Your task to perform on an android device: Show the shopping cart on newegg. Add lenovo thinkpad to the cart on newegg Image 0: 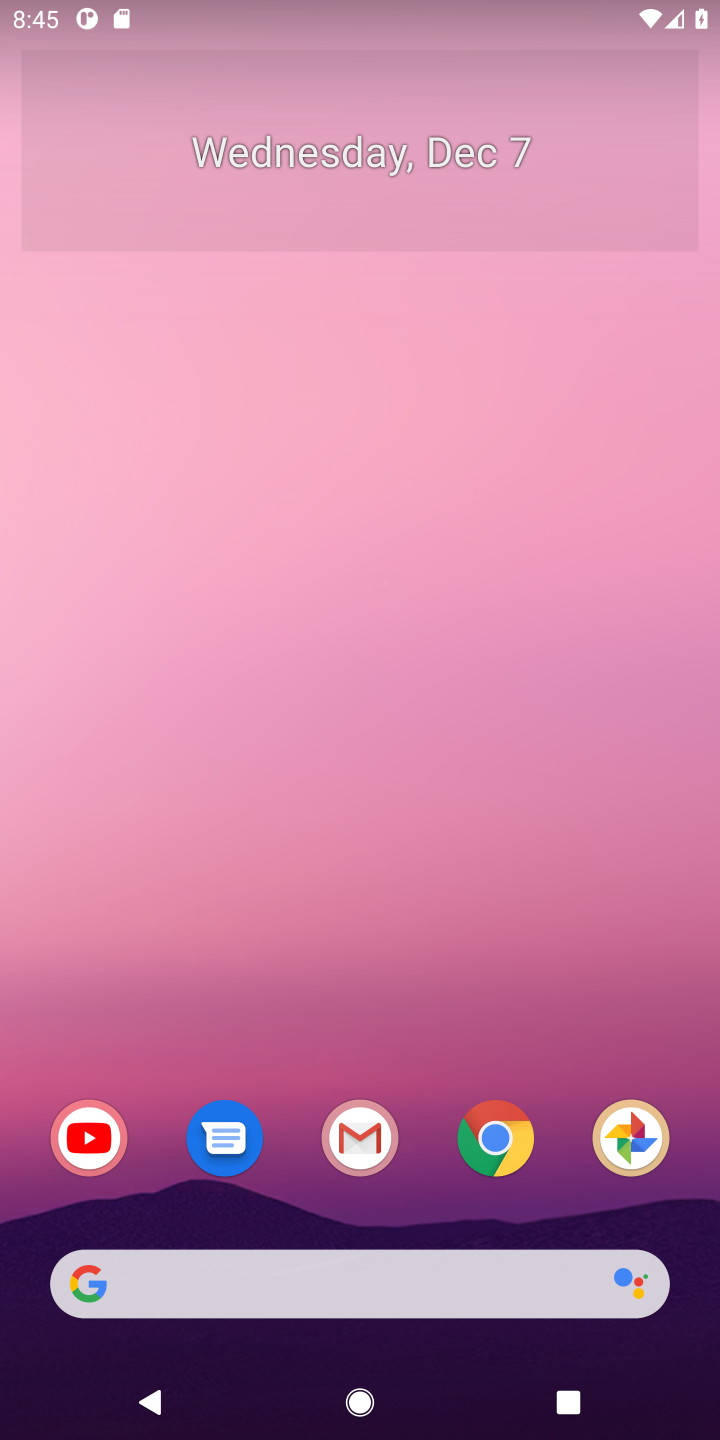
Step 0: press home button
Your task to perform on an android device: Show the shopping cart on newegg. Add lenovo thinkpad to the cart on newegg Image 1: 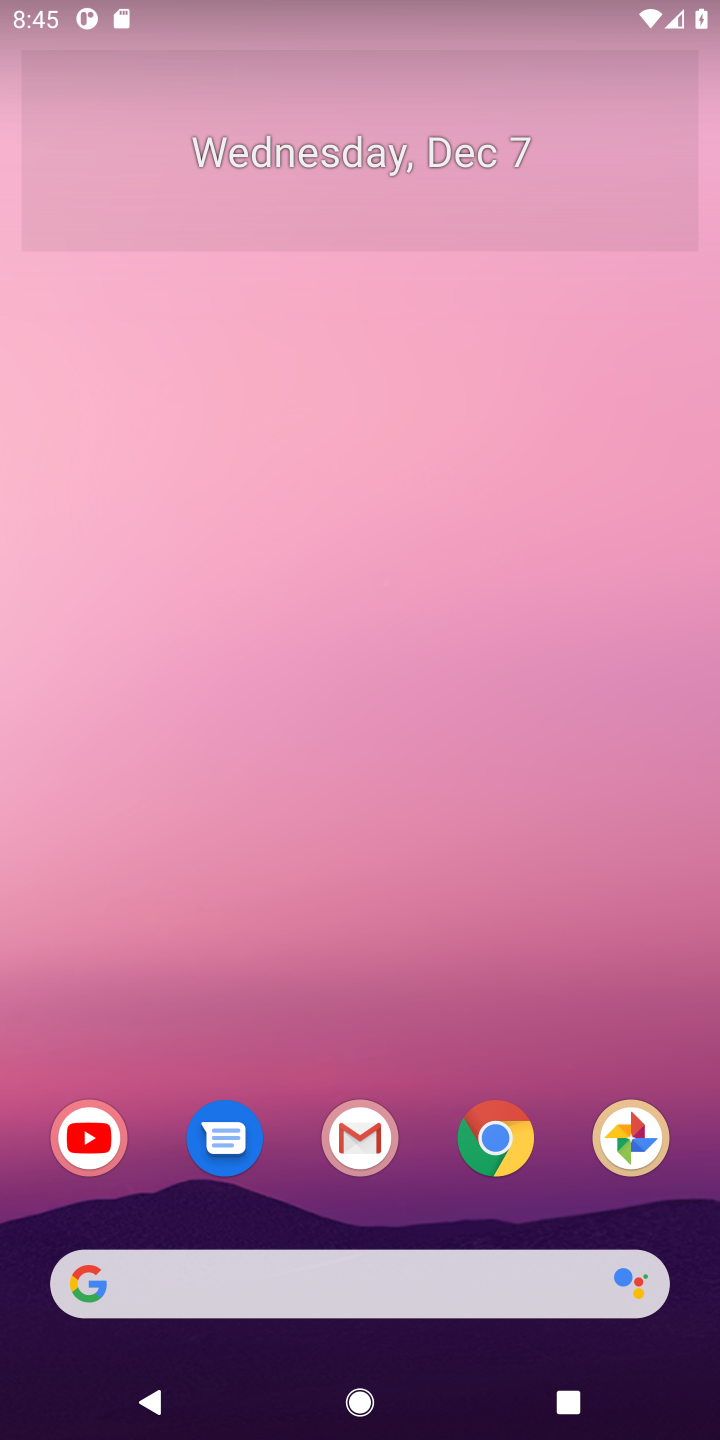
Step 1: click (148, 1281)
Your task to perform on an android device: Show the shopping cart on newegg. Add lenovo thinkpad to the cart on newegg Image 2: 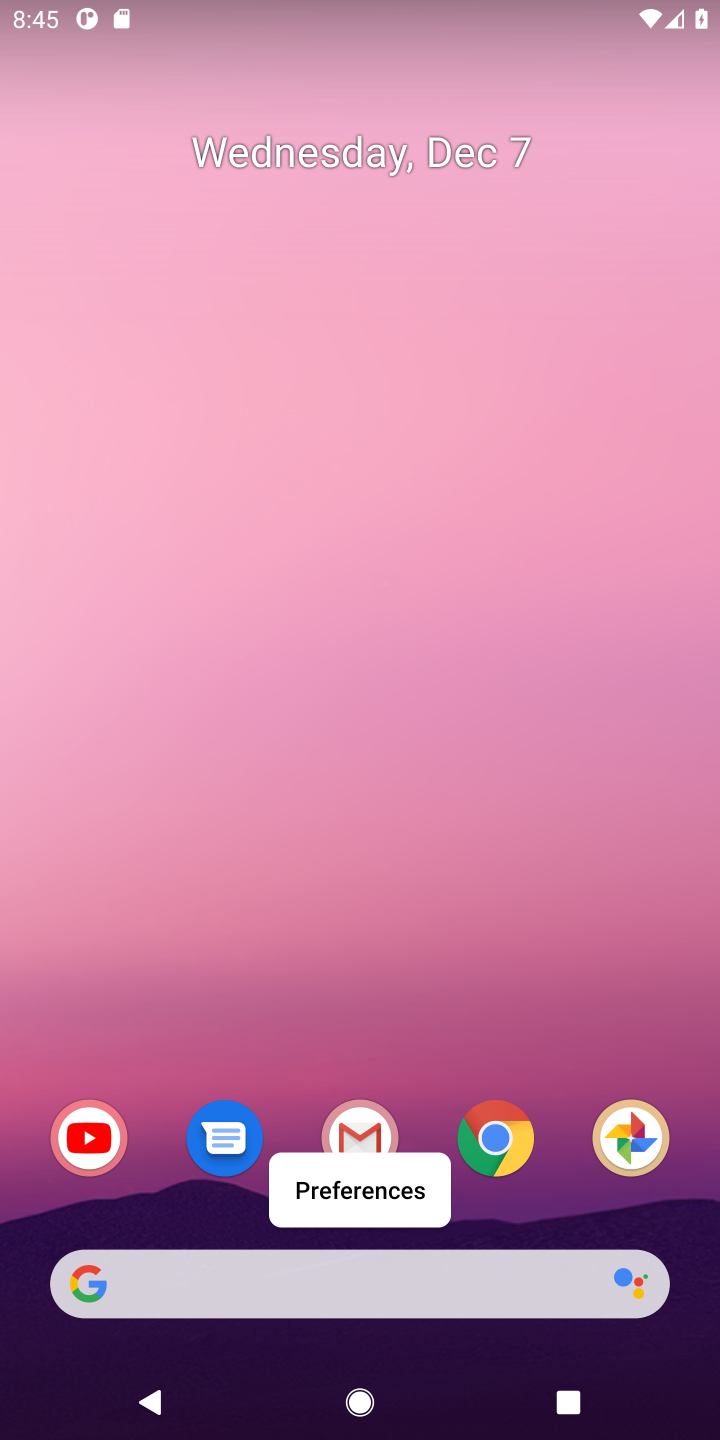
Step 2: click (148, 1281)
Your task to perform on an android device: Show the shopping cart on newegg. Add lenovo thinkpad to the cart on newegg Image 3: 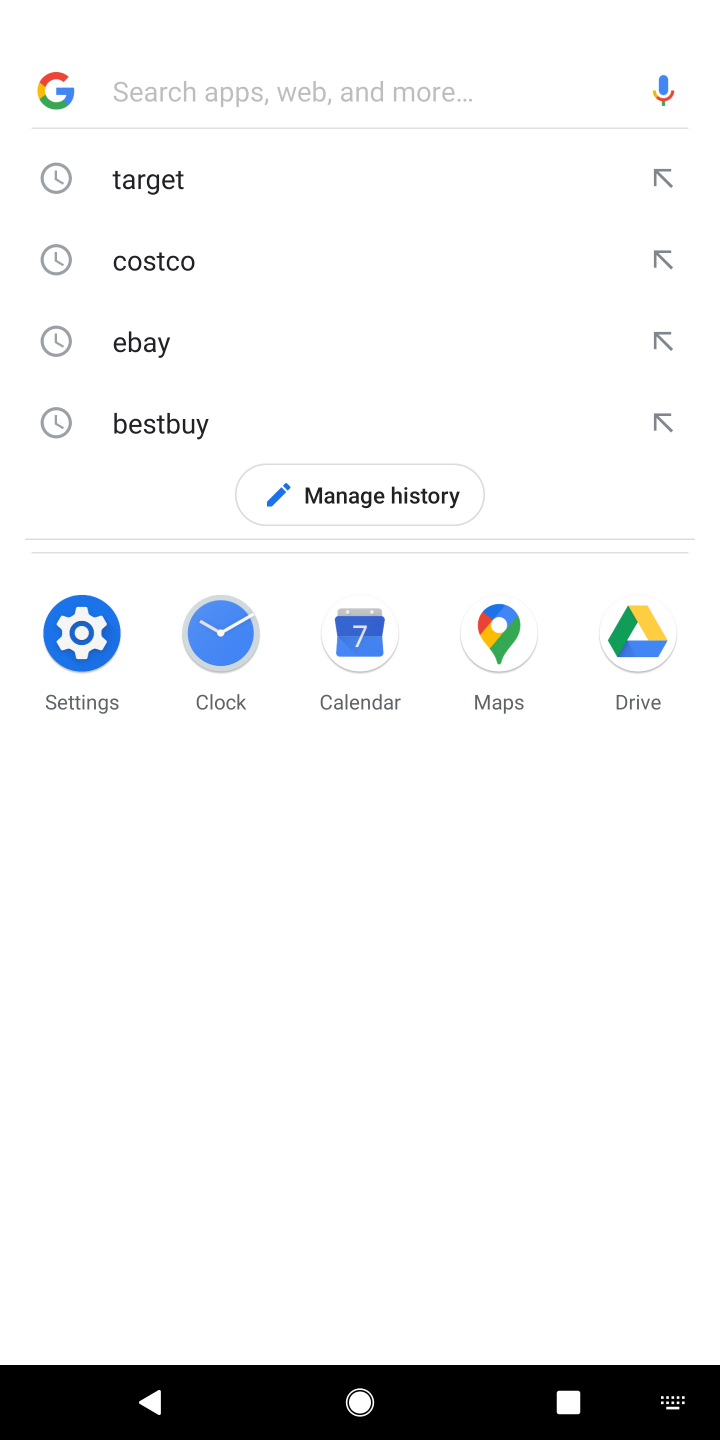
Step 3: press enter
Your task to perform on an android device: Show the shopping cart on newegg. Add lenovo thinkpad to the cart on newegg Image 4: 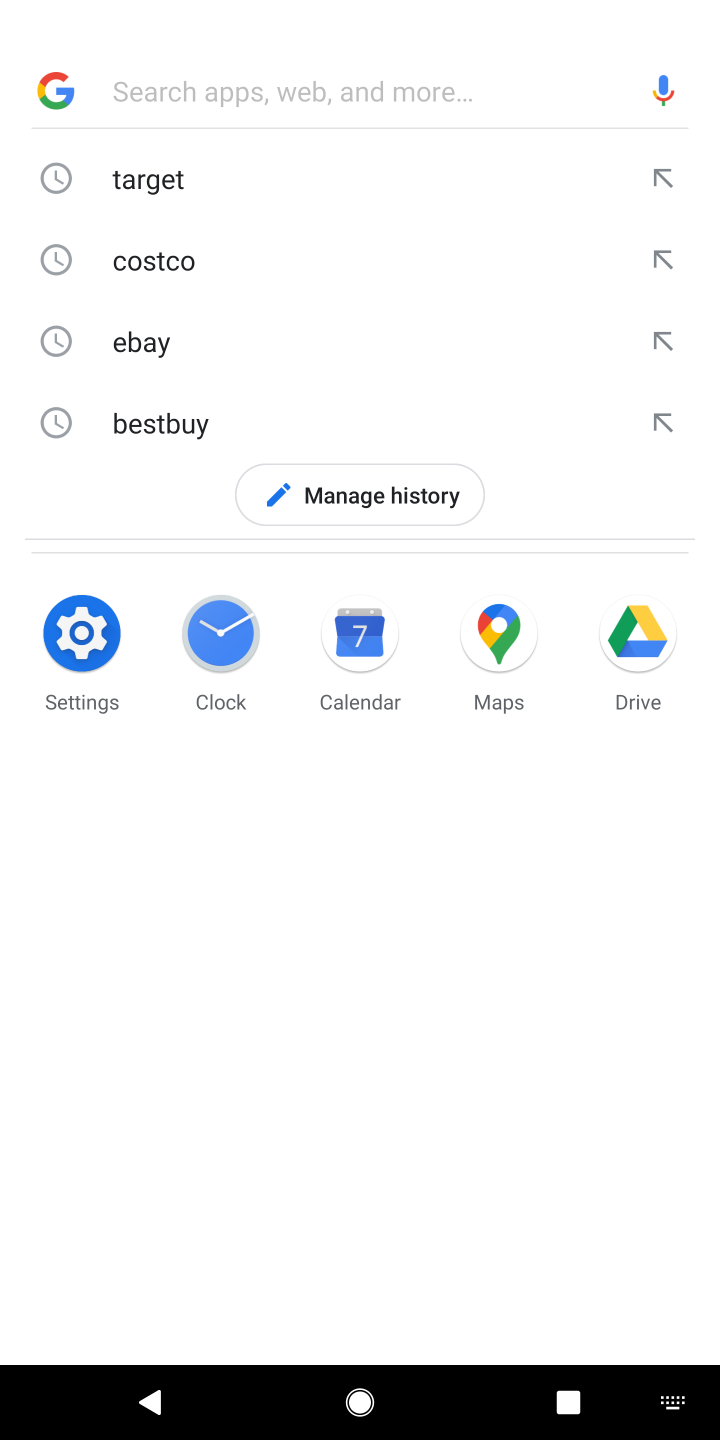
Step 4: type "newegg"
Your task to perform on an android device: Show the shopping cart on newegg. Add lenovo thinkpad to the cart on newegg Image 5: 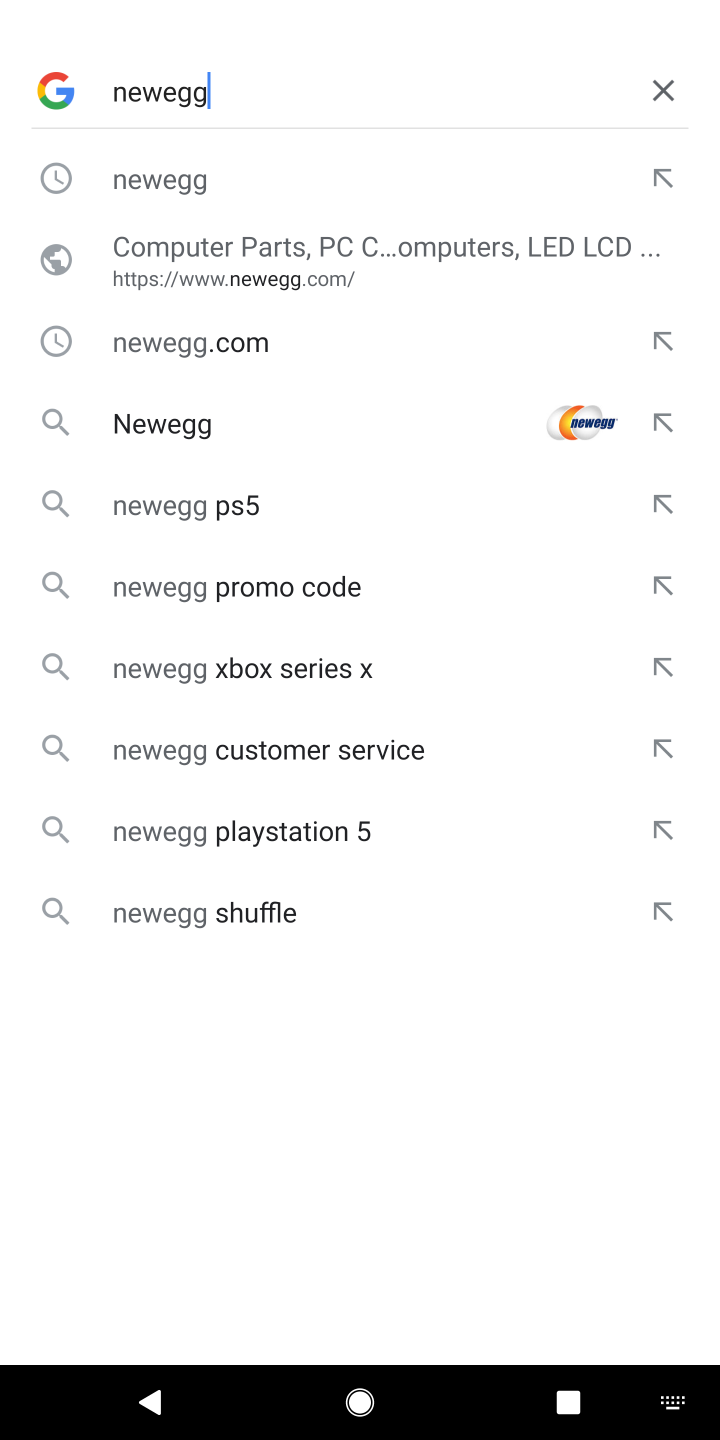
Step 5: press enter
Your task to perform on an android device: Show the shopping cart on newegg. Add lenovo thinkpad to the cart on newegg Image 6: 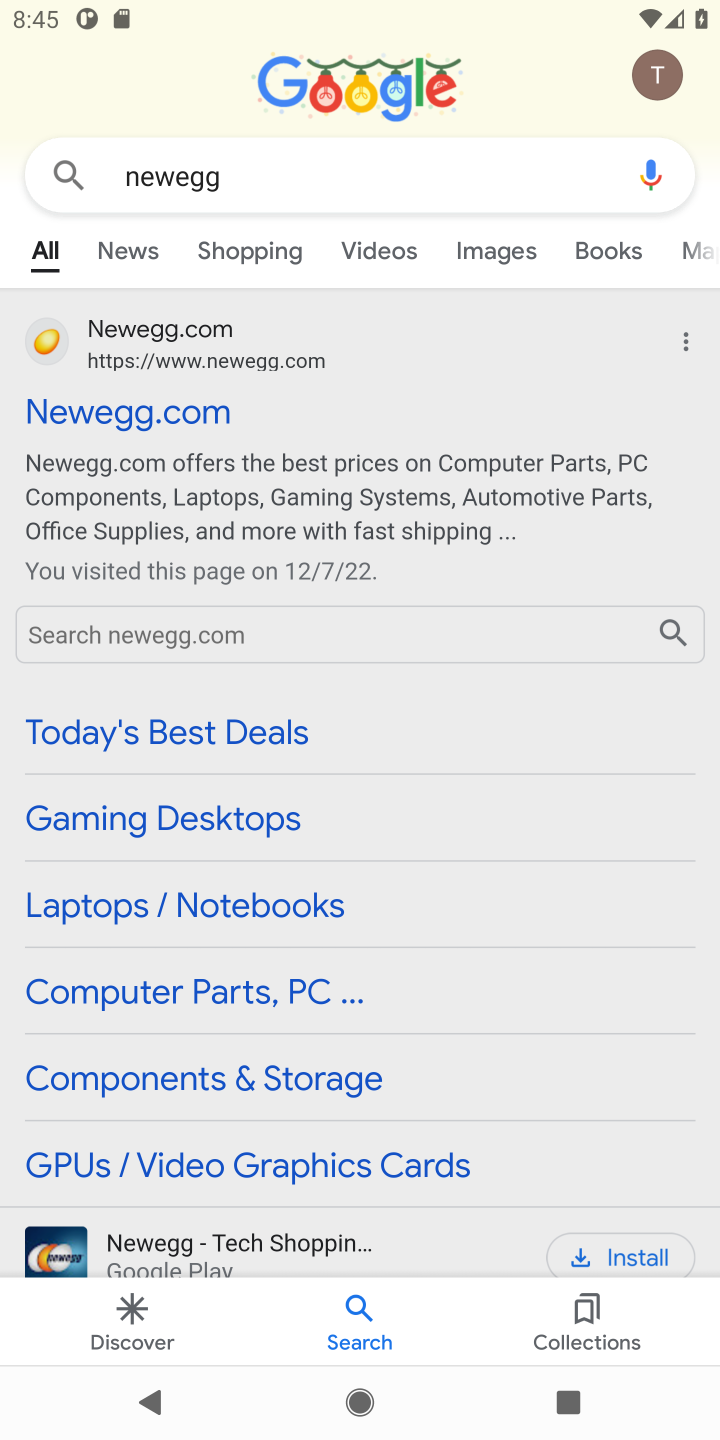
Step 6: click (172, 403)
Your task to perform on an android device: Show the shopping cart on newegg. Add lenovo thinkpad to the cart on newegg Image 7: 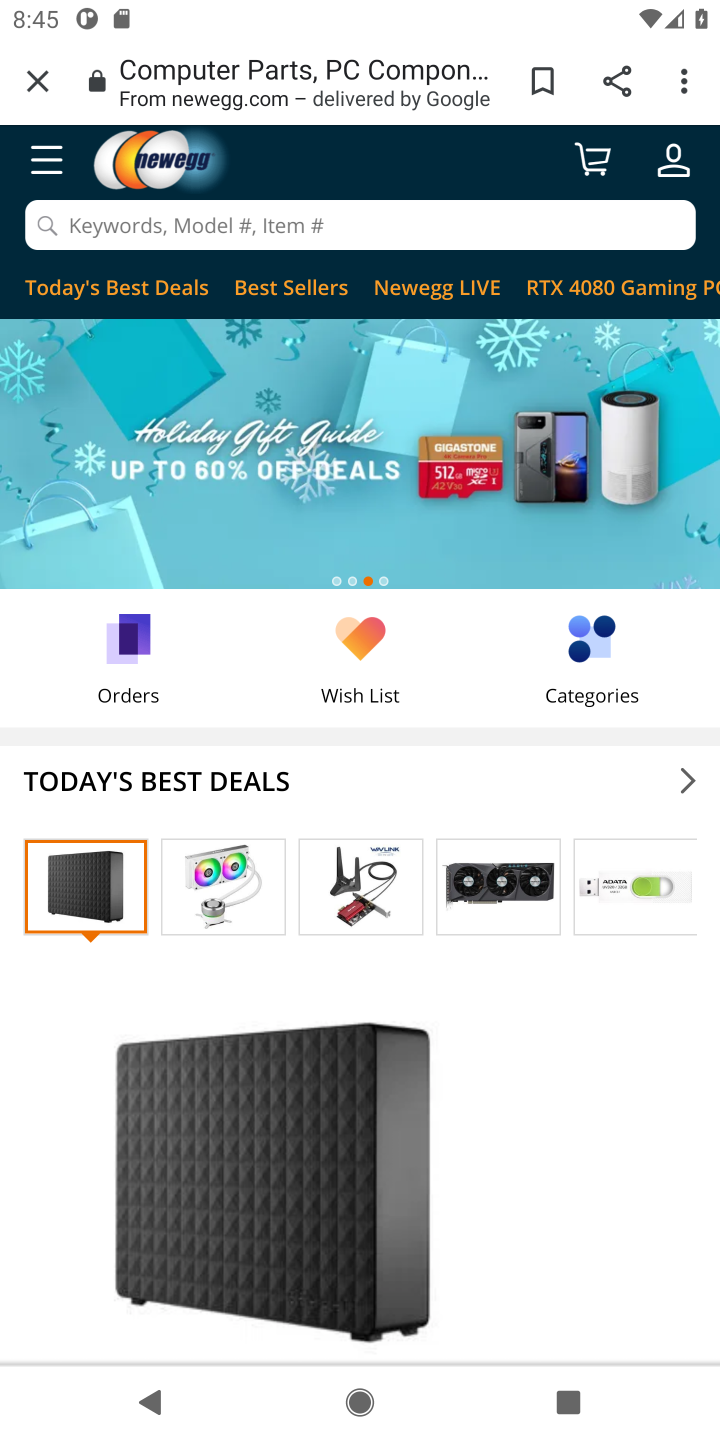
Step 7: click (168, 219)
Your task to perform on an android device: Show the shopping cart on newegg. Add lenovo thinkpad to the cart on newegg Image 8: 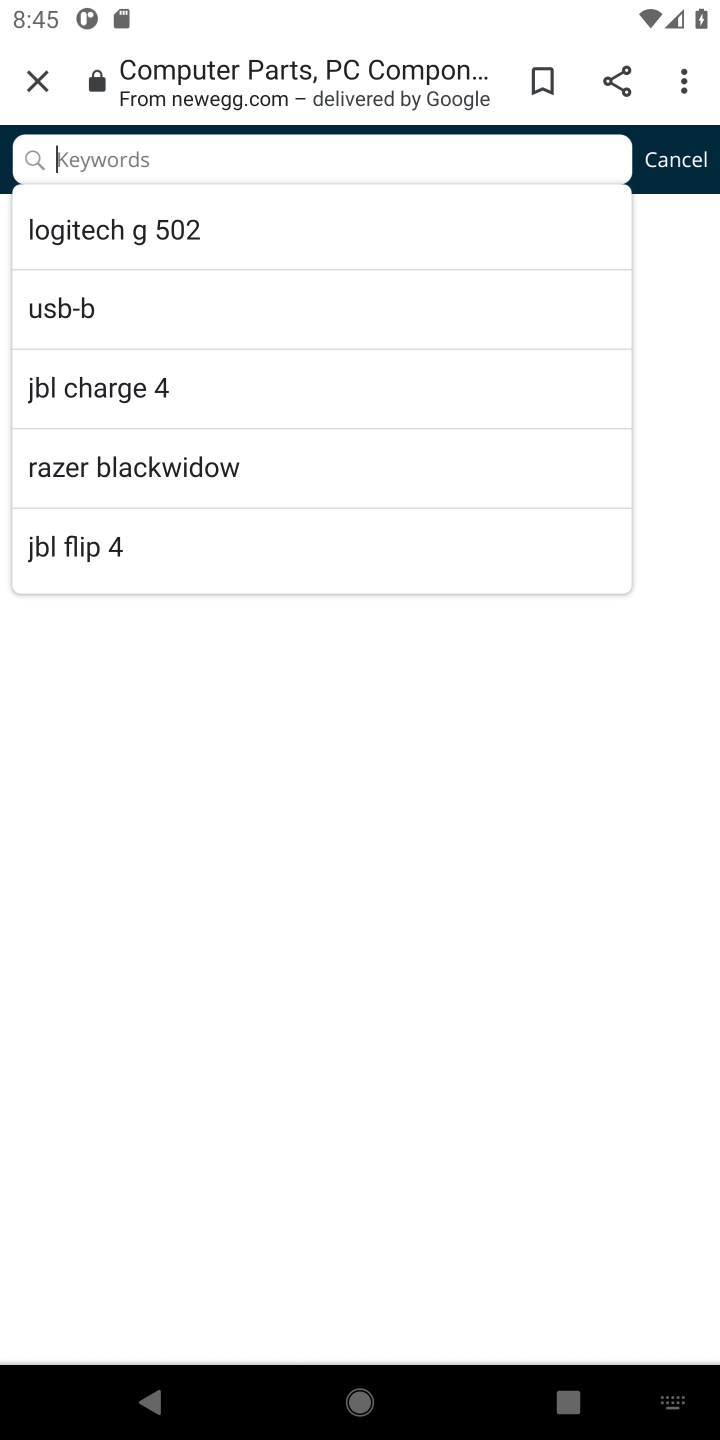
Step 8: press enter
Your task to perform on an android device: Show the shopping cart on newegg. Add lenovo thinkpad to the cart on newegg Image 9: 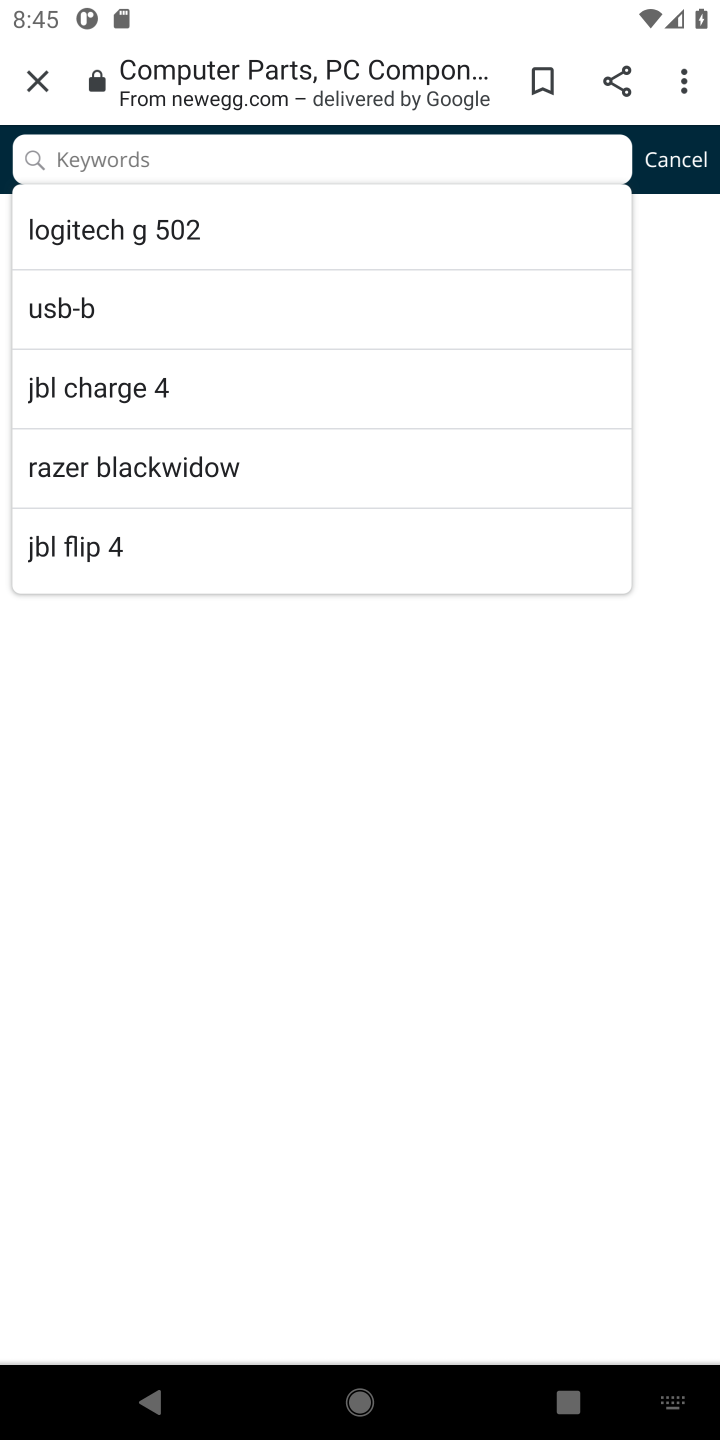
Step 9: type "lenovo thinkpad"
Your task to perform on an android device: Show the shopping cart on newegg. Add lenovo thinkpad to the cart on newegg Image 10: 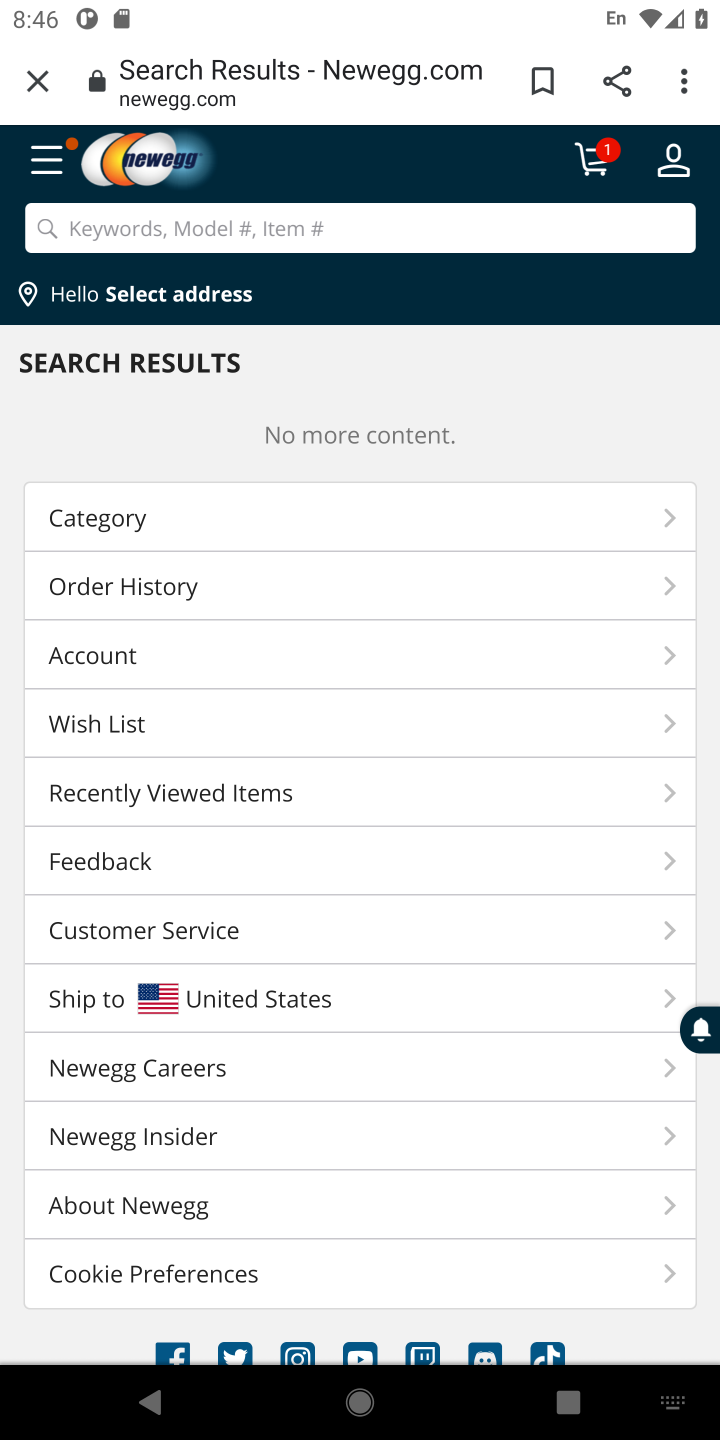
Step 10: click (388, 224)
Your task to perform on an android device: Show the shopping cart on newegg. Add lenovo thinkpad to the cart on newegg Image 11: 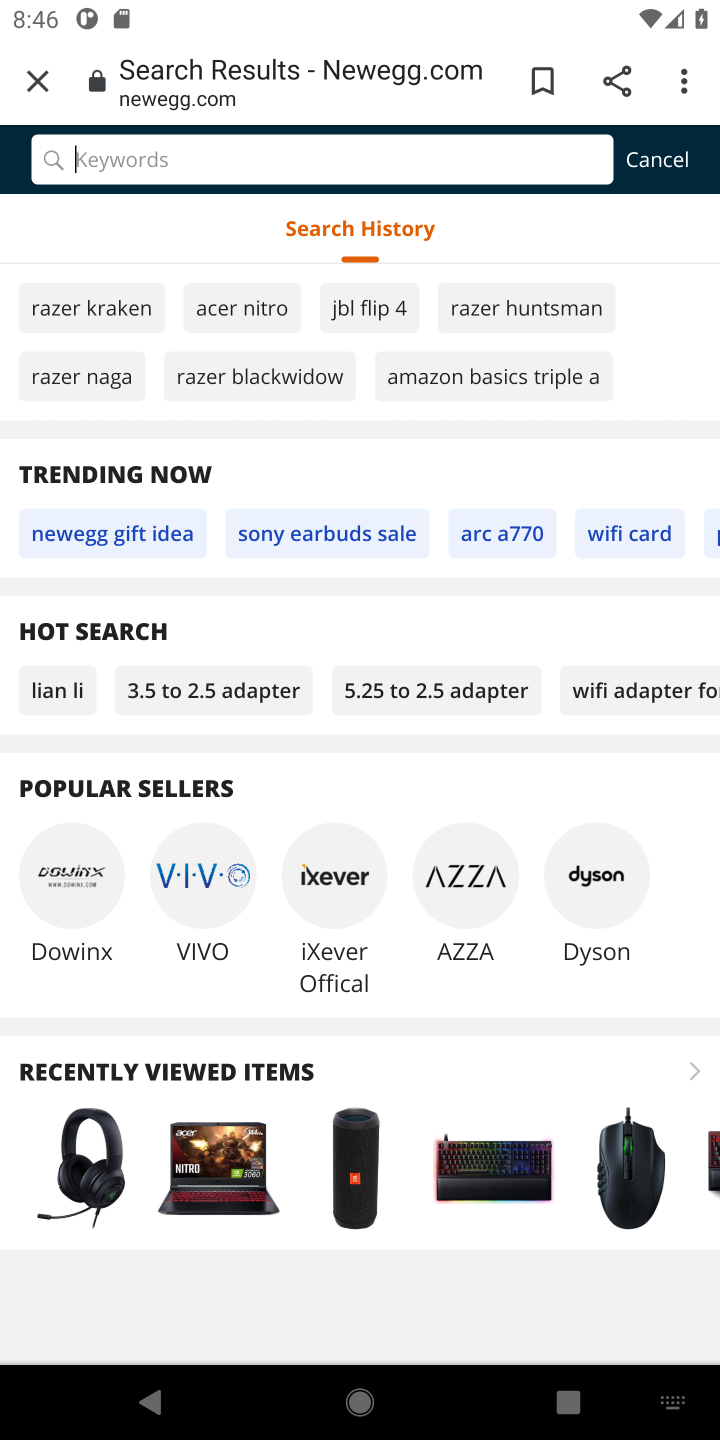
Step 11: type "lenovo thinkpad"
Your task to perform on an android device: Show the shopping cart on newegg. Add lenovo thinkpad to the cart on newegg Image 12: 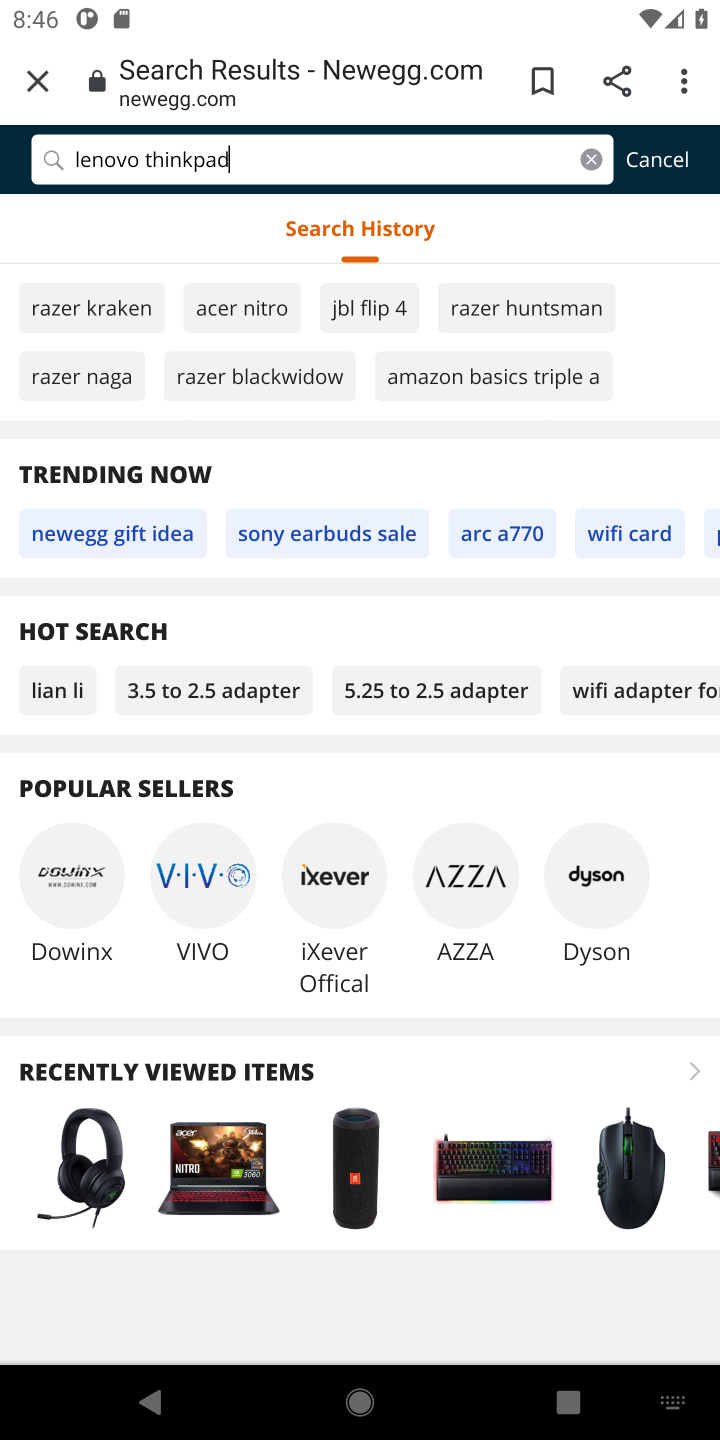
Step 12: press enter
Your task to perform on an android device: Show the shopping cart on newegg. Add lenovo thinkpad to the cart on newegg Image 13: 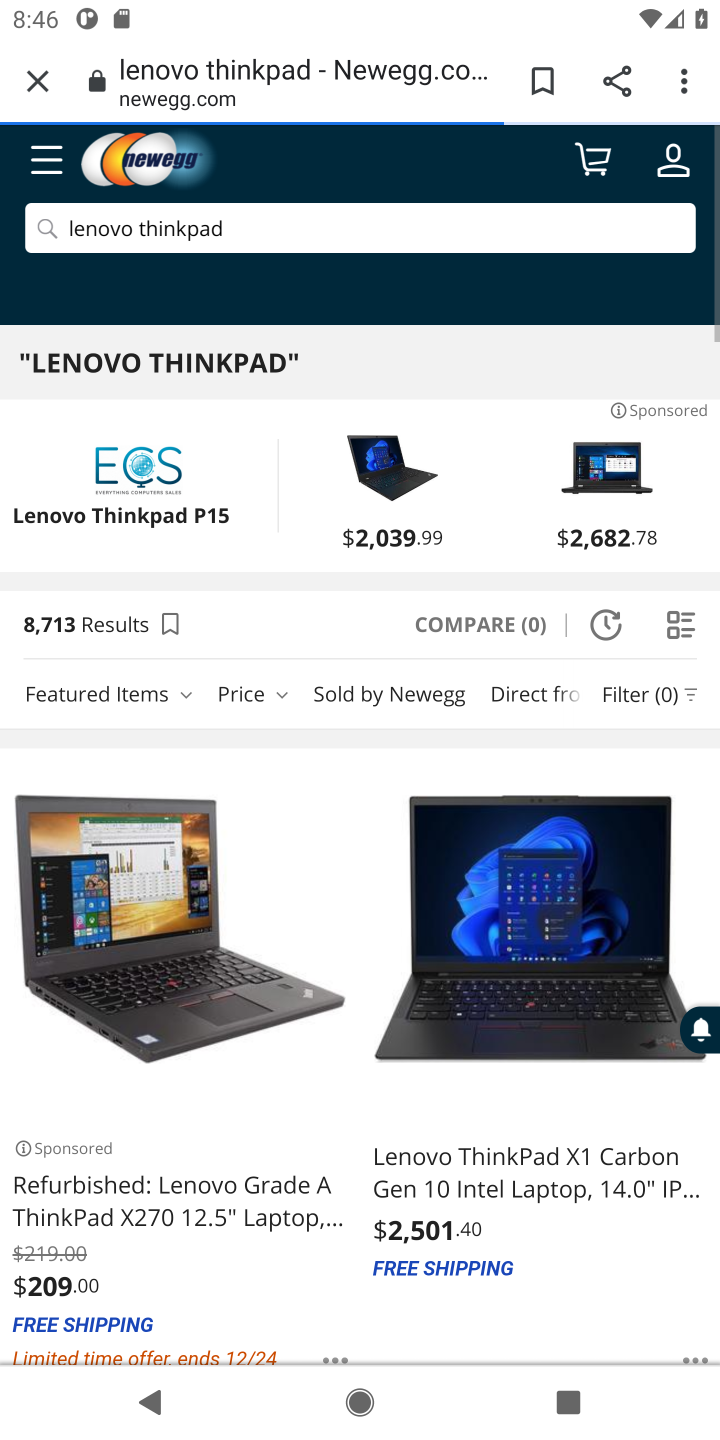
Step 13: press enter
Your task to perform on an android device: Show the shopping cart on newegg. Add lenovo thinkpad to the cart on newegg Image 14: 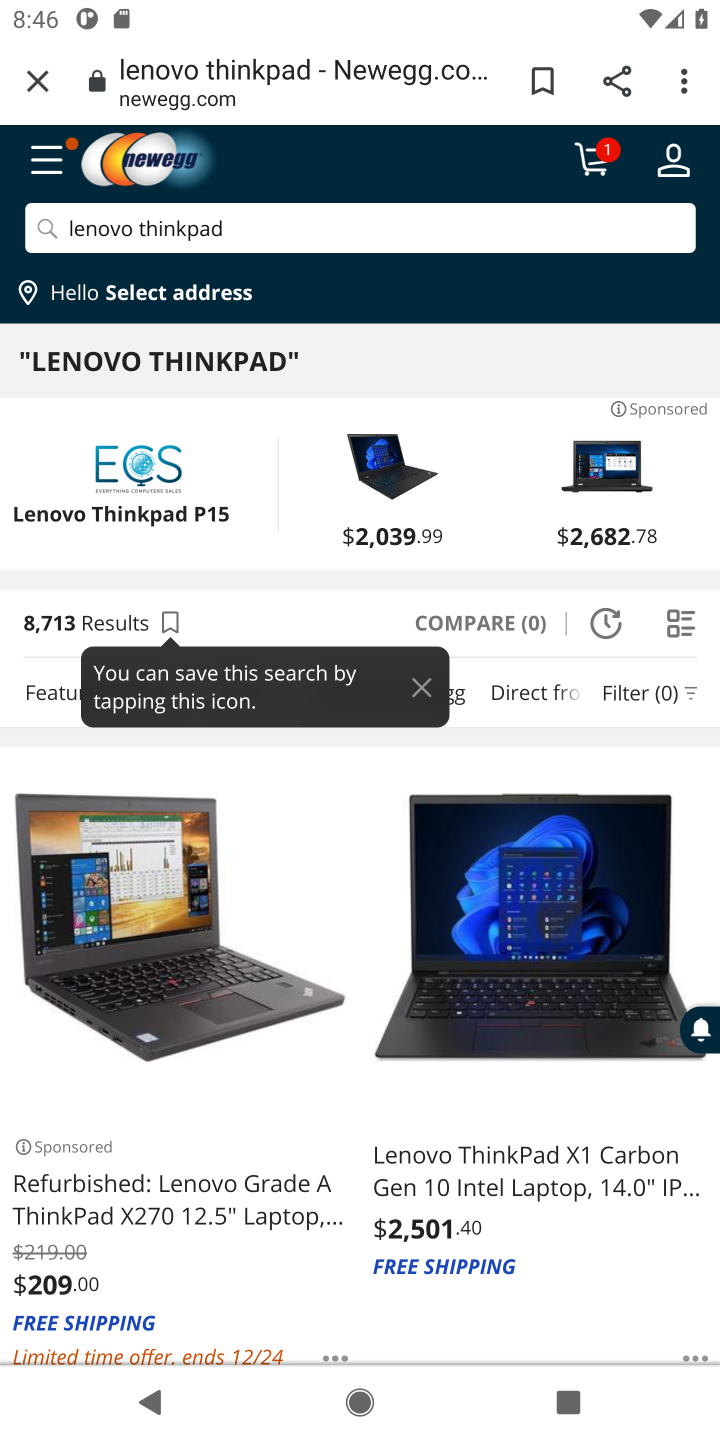
Step 14: click (543, 1202)
Your task to perform on an android device: Show the shopping cart on newegg. Add lenovo thinkpad to the cart on newegg Image 15: 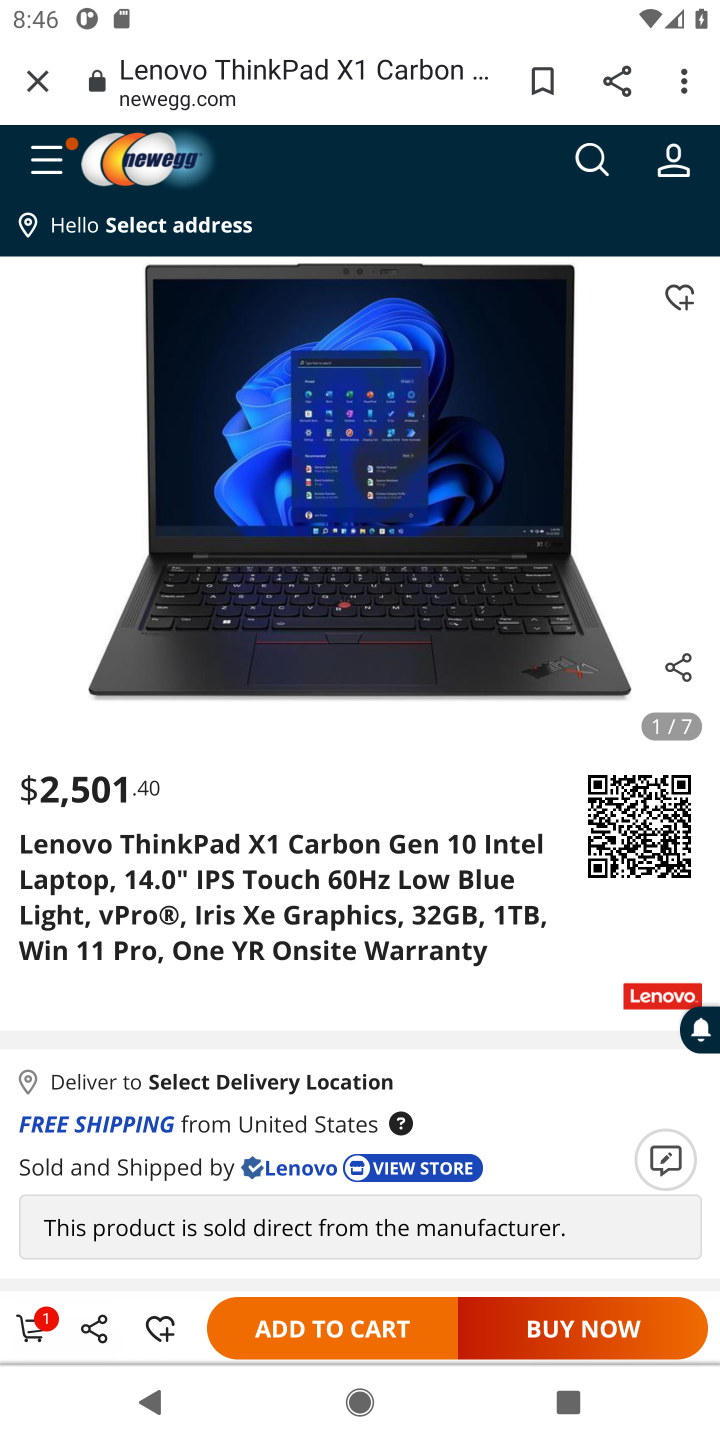
Step 15: click (313, 1330)
Your task to perform on an android device: Show the shopping cart on newegg. Add lenovo thinkpad to the cart on newegg Image 16: 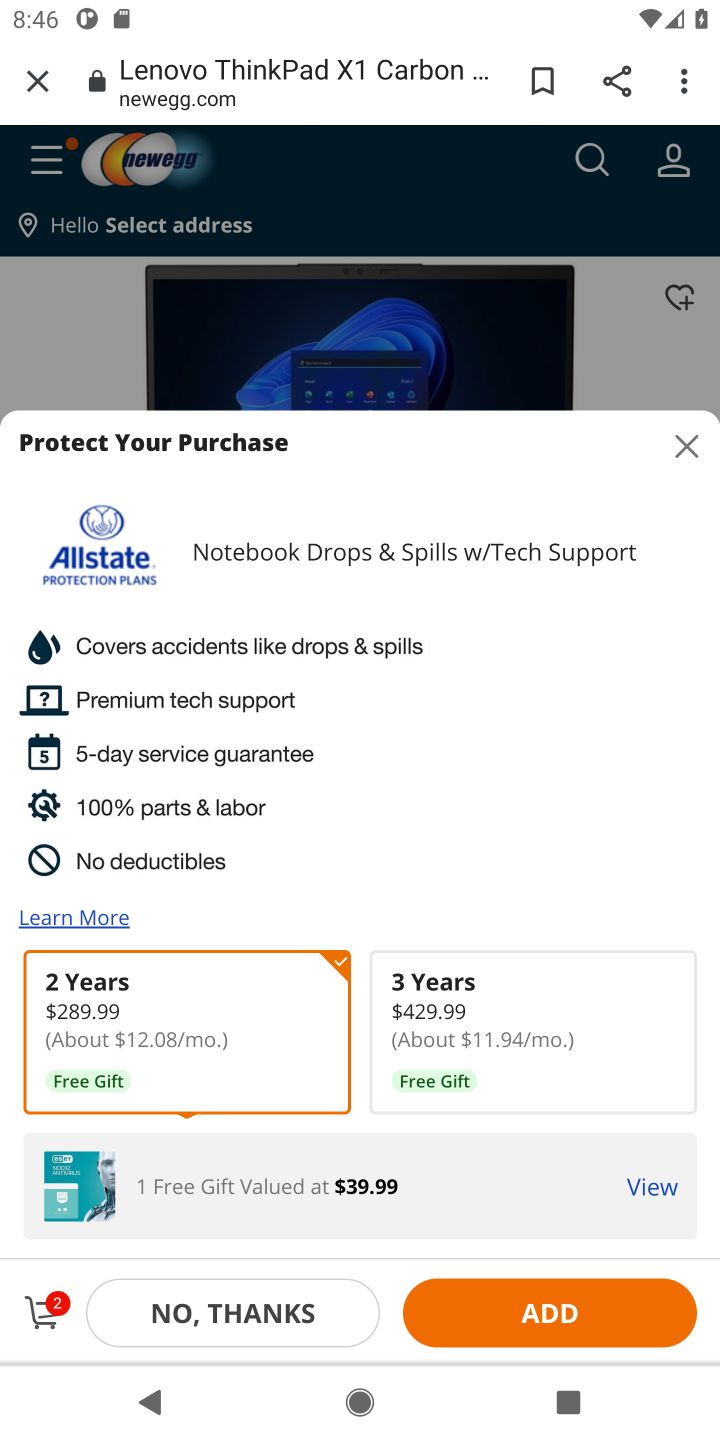
Step 16: click (244, 1319)
Your task to perform on an android device: Show the shopping cart on newegg. Add lenovo thinkpad to the cart on newegg Image 17: 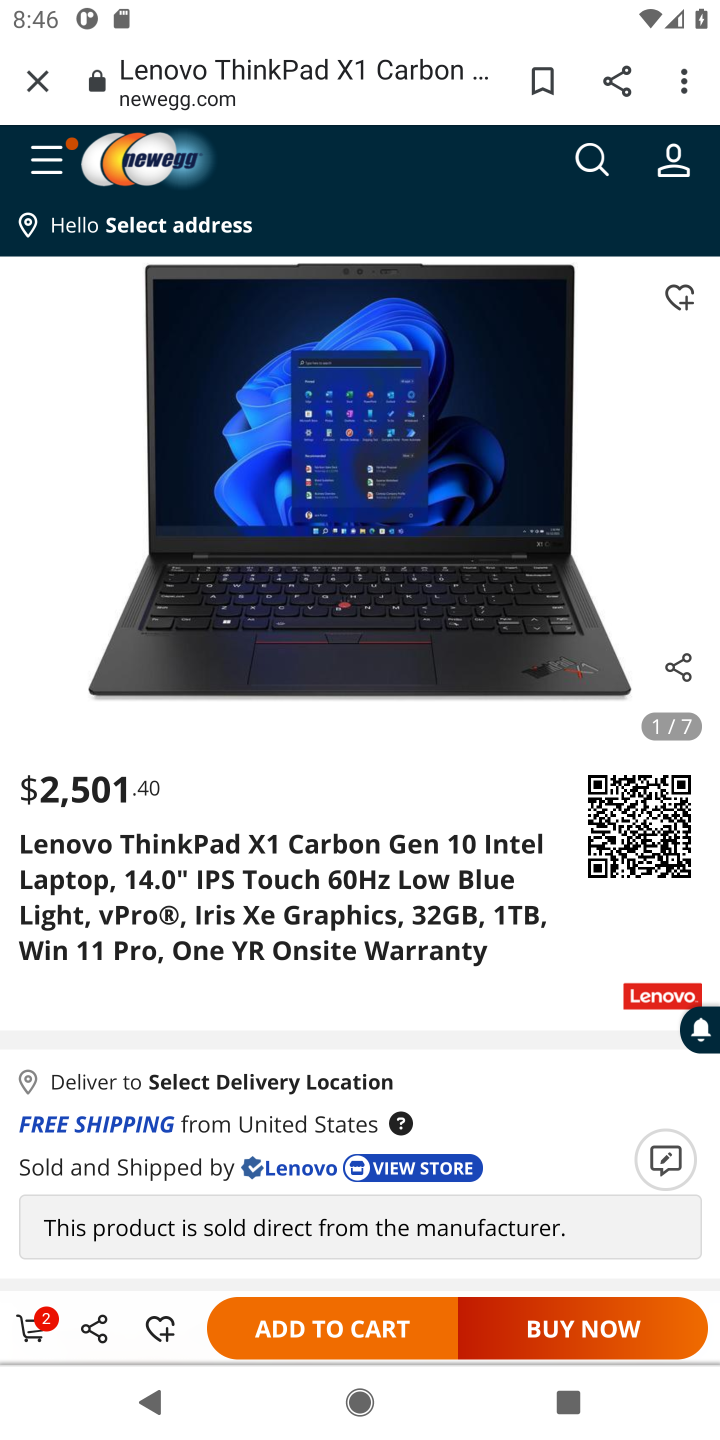
Step 17: task complete